Your task to perform on an android device: Open settings Image 0: 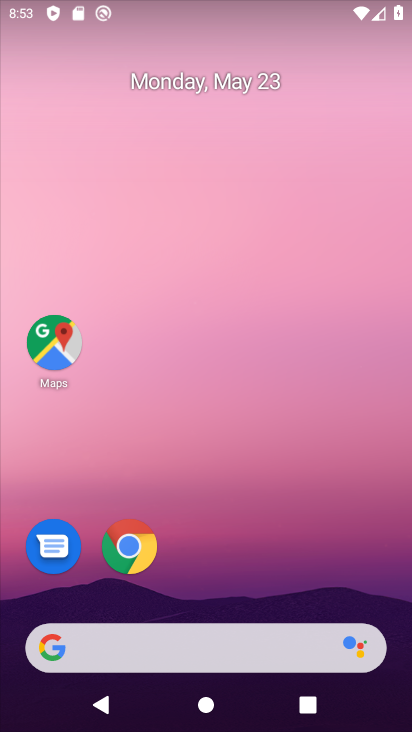
Step 0: drag from (321, 500) to (371, 116)
Your task to perform on an android device: Open settings Image 1: 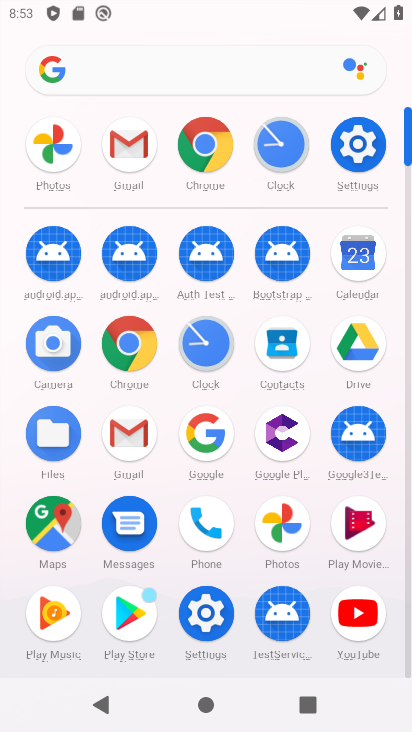
Step 1: click (354, 141)
Your task to perform on an android device: Open settings Image 2: 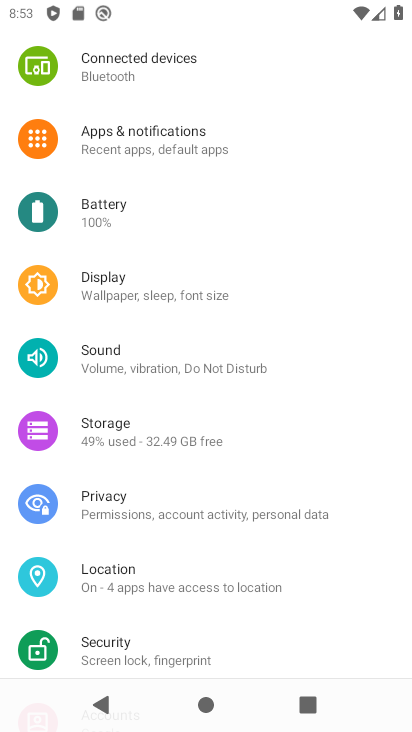
Step 2: task complete